Your task to perform on an android device: turn off smart reply in the gmail app Image 0: 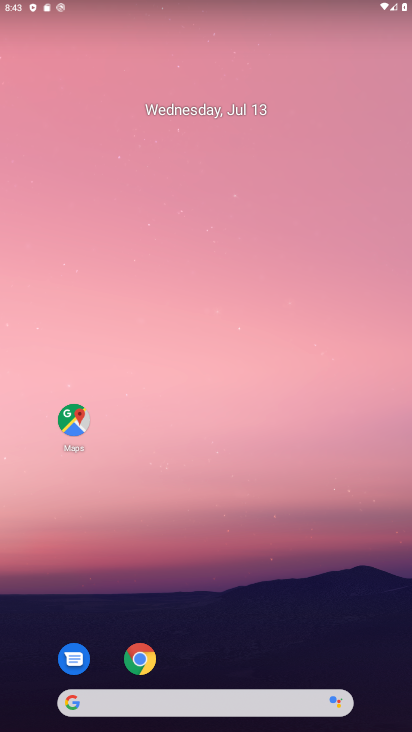
Step 0: drag from (217, 662) to (223, 158)
Your task to perform on an android device: turn off smart reply in the gmail app Image 1: 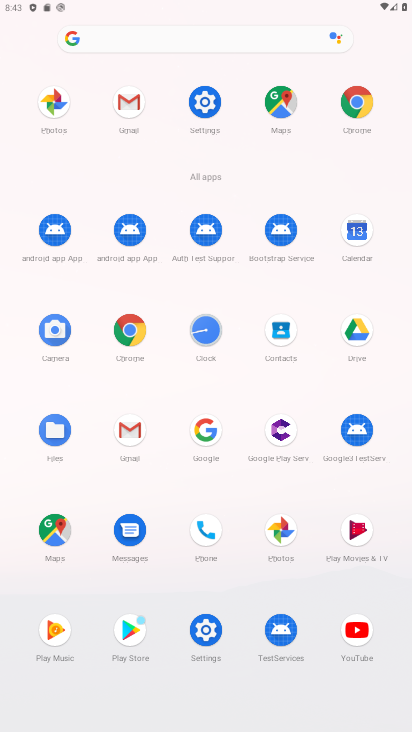
Step 1: click (134, 431)
Your task to perform on an android device: turn off smart reply in the gmail app Image 2: 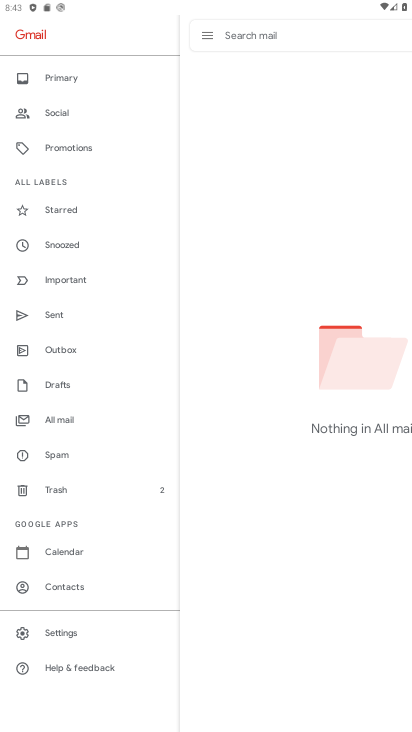
Step 2: click (70, 633)
Your task to perform on an android device: turn off smart reply in the gmail app Image 3: 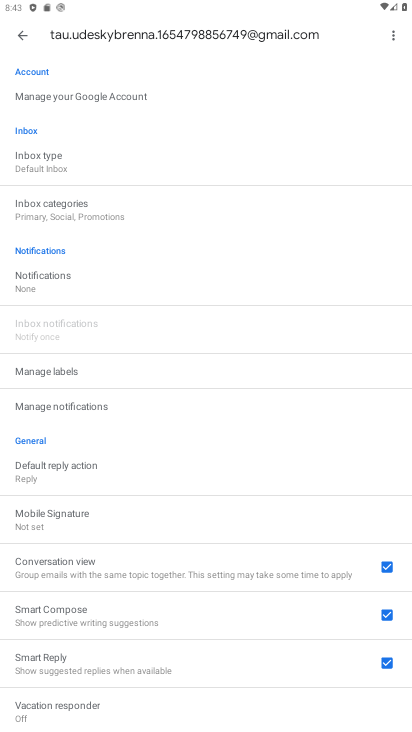
Step 3: click (384, 664)
Your task to perform on an android device: turn off smart reply in the gmail app Image 4: 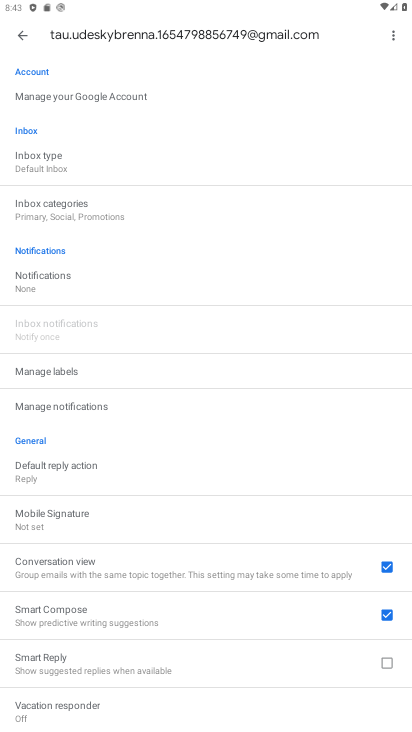
Step 4: task complete